Your task to perform on an android device: Open eBay Image 0: 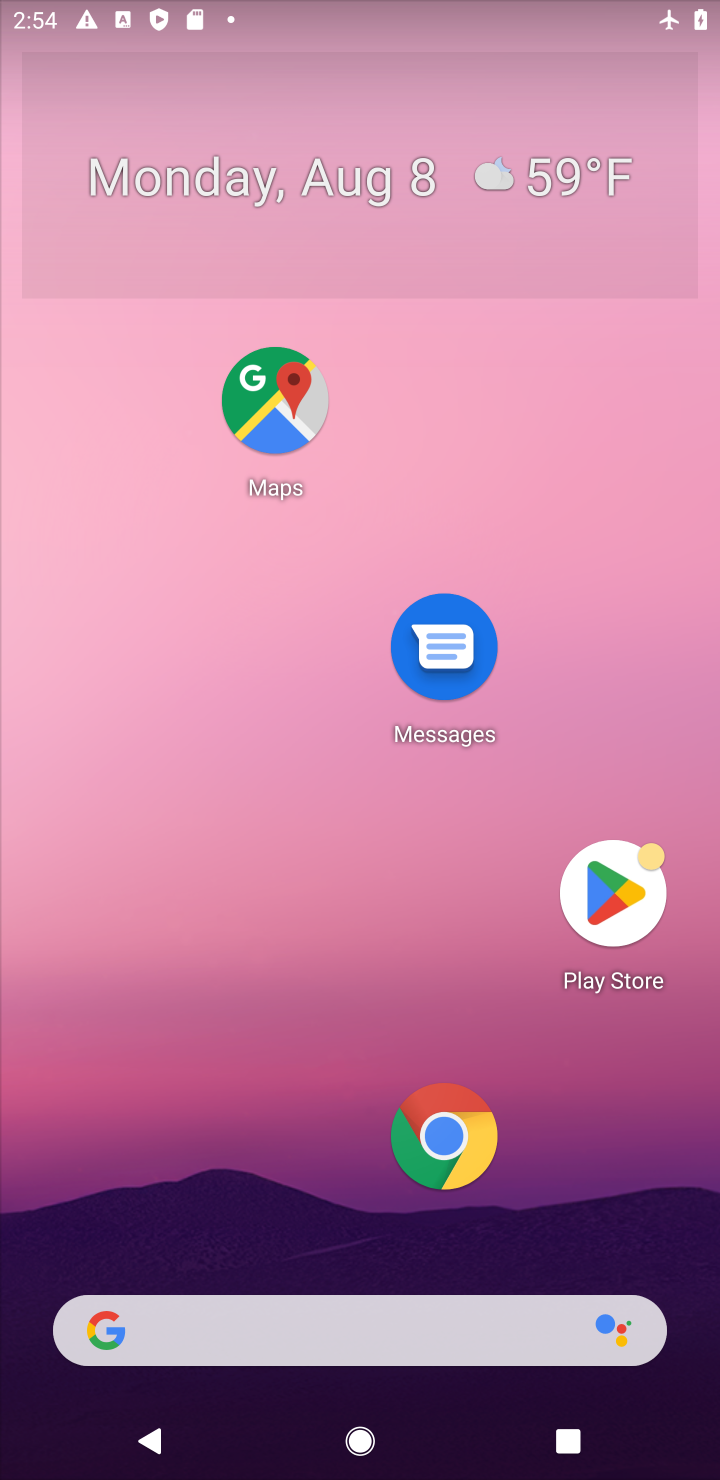
Step 0: click (351, 1328)
Your task to perform on an android device: Open eBay Image 1: 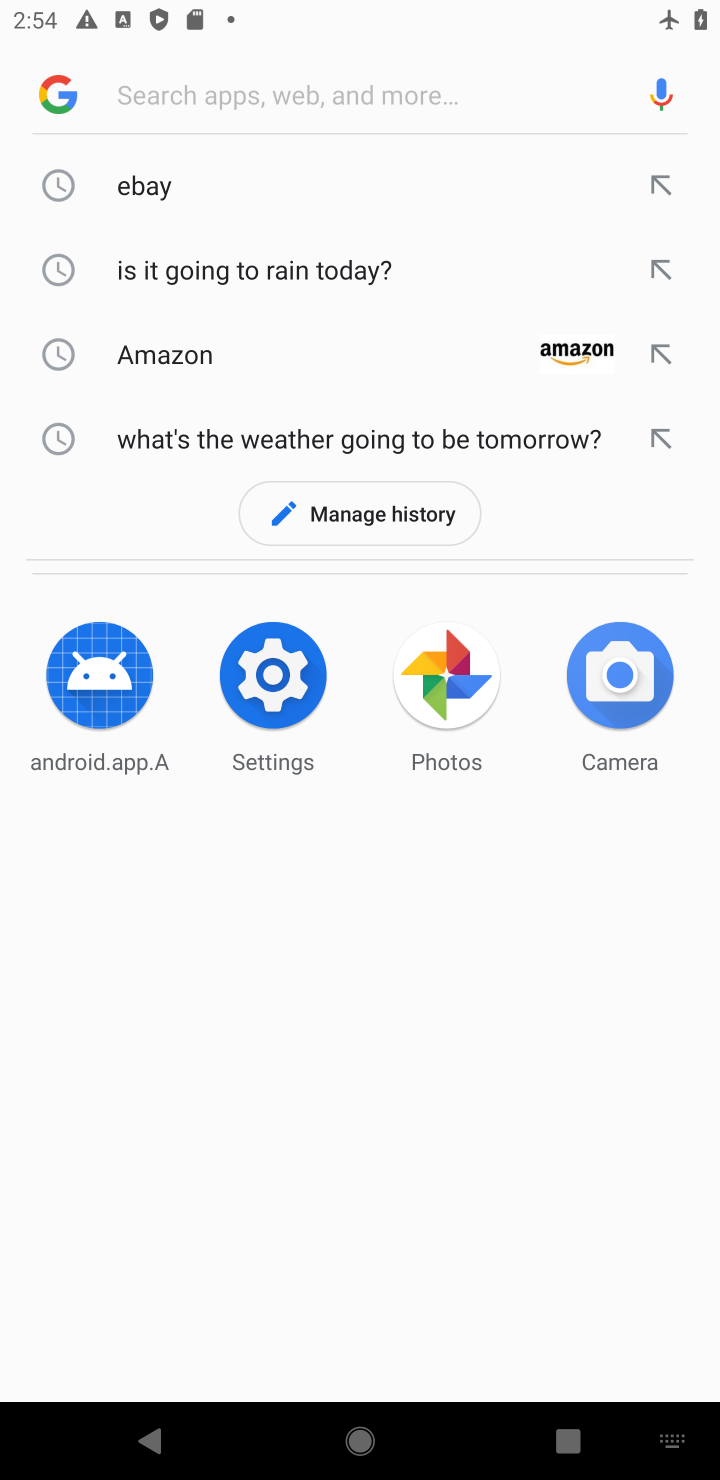
Step 1: click (129, 173)
Your task to perform on an android device: Open eBay Image 2: 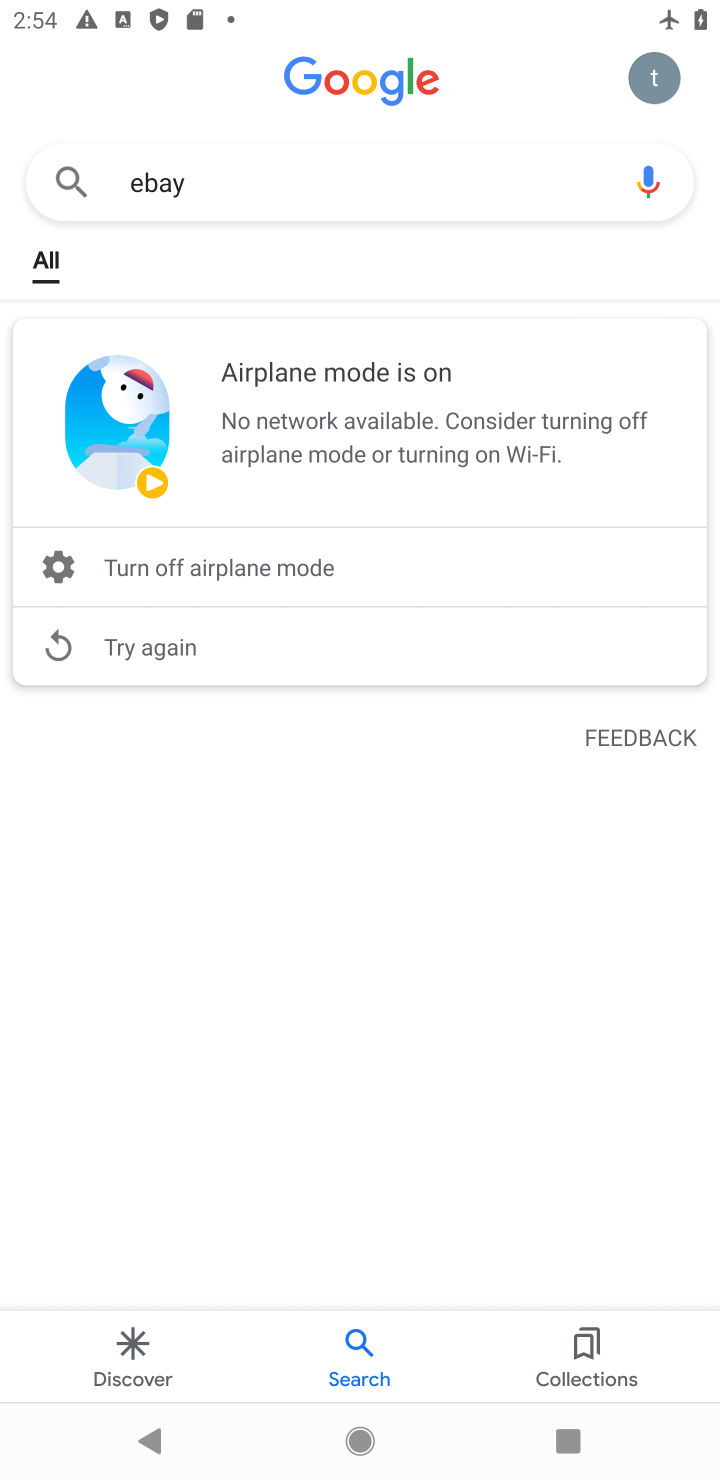
Step 2: drag from (433, 25) to (391, 1155)
Your task to perform on an android device: Open eBay Image 3: 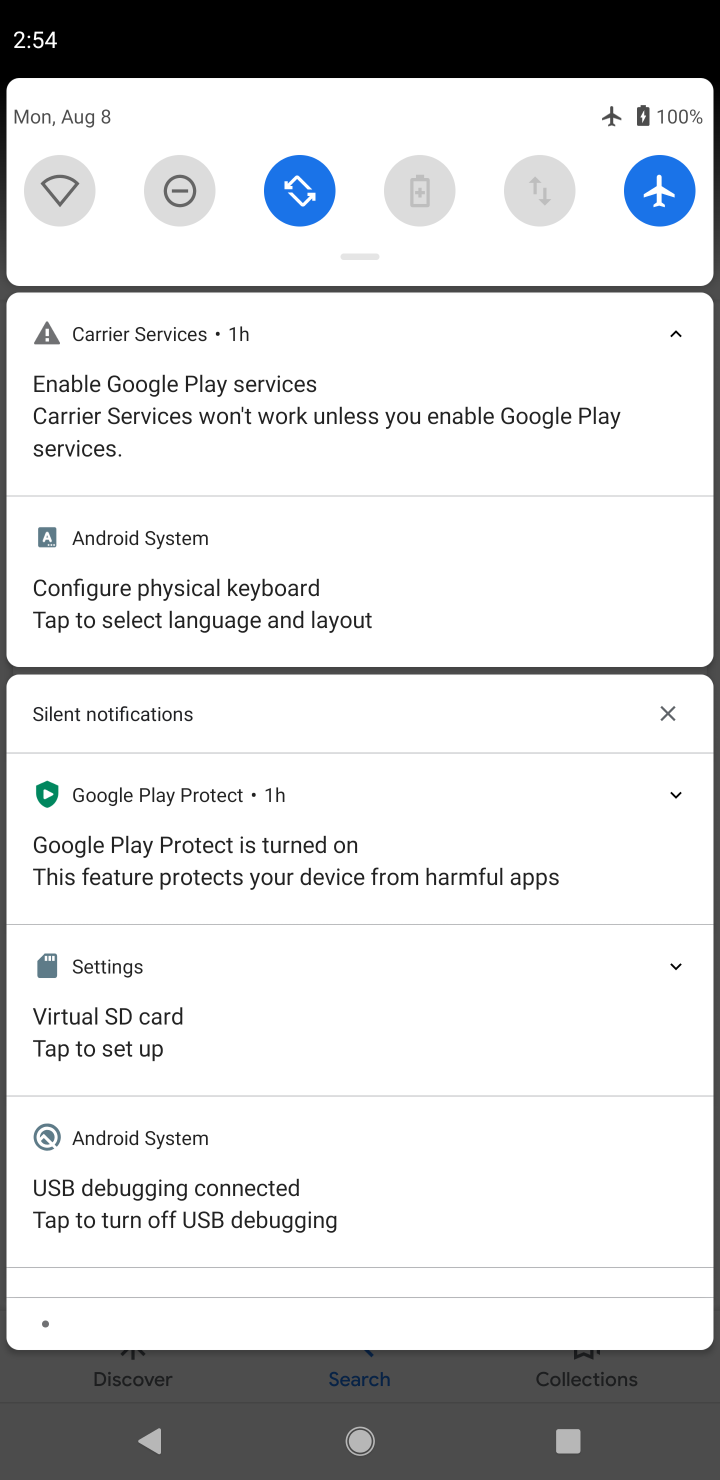
Step 3: click (649, 202)
Your task to perform on an android device: Open eBay Image 4: 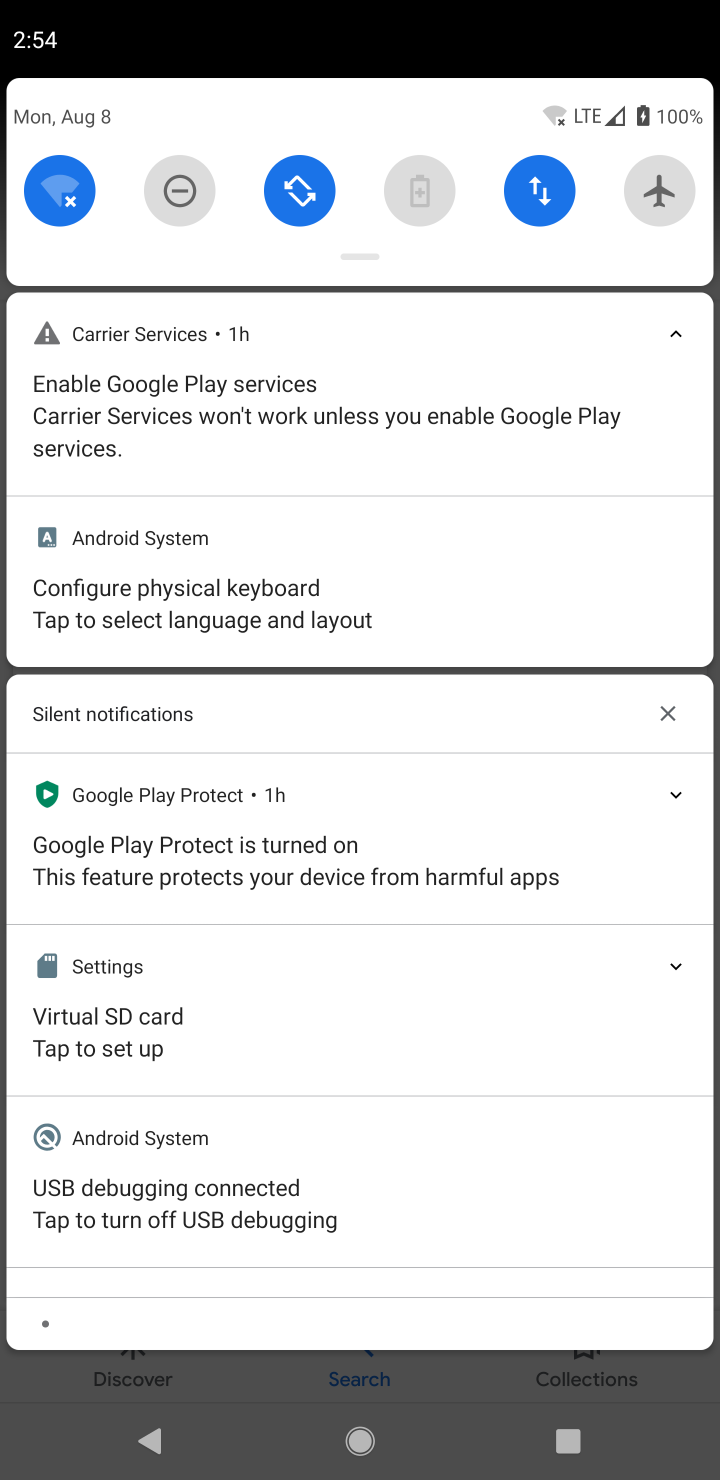
Step 4: click (438, 1395)
Your task to perform on an android device: Open eBay Image 5: 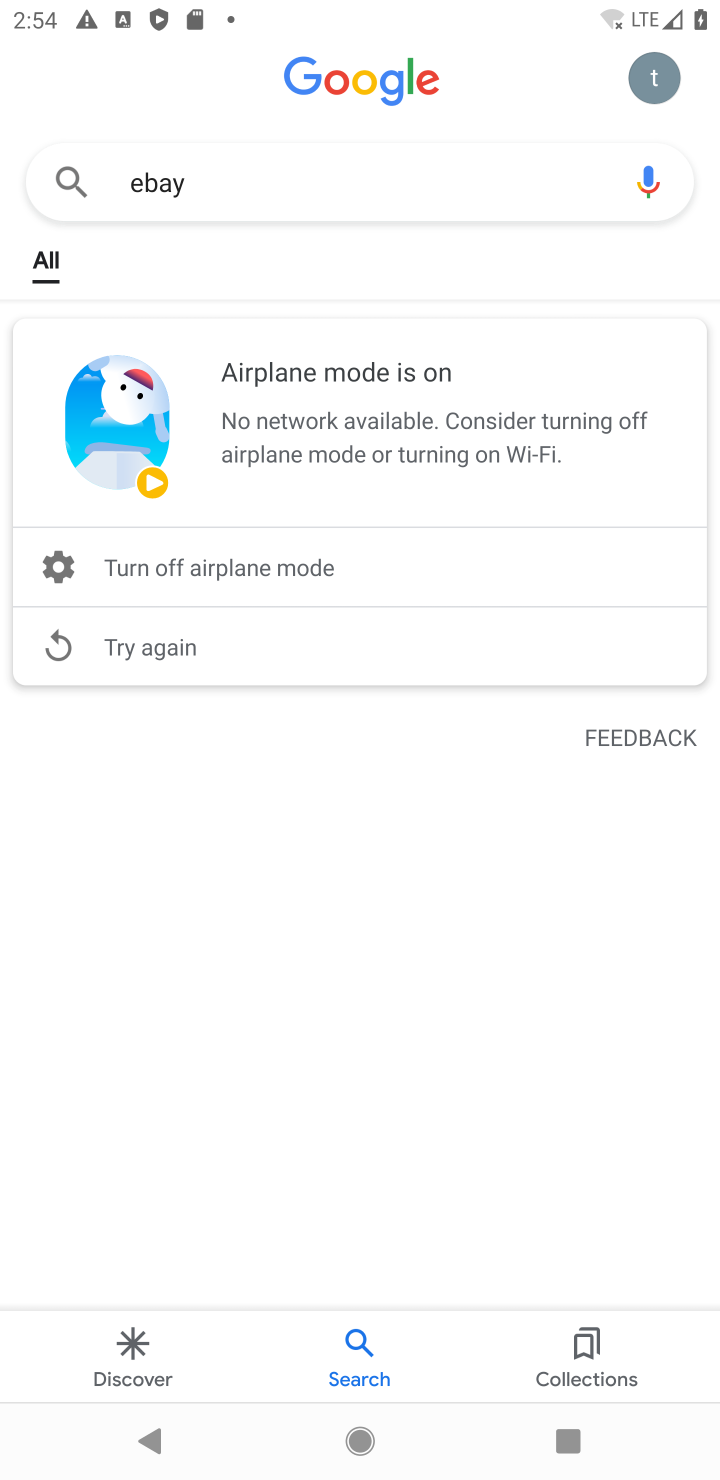
Step 5: click (663, 712)
Your task to perform on an android device: Open eBay Image 6: 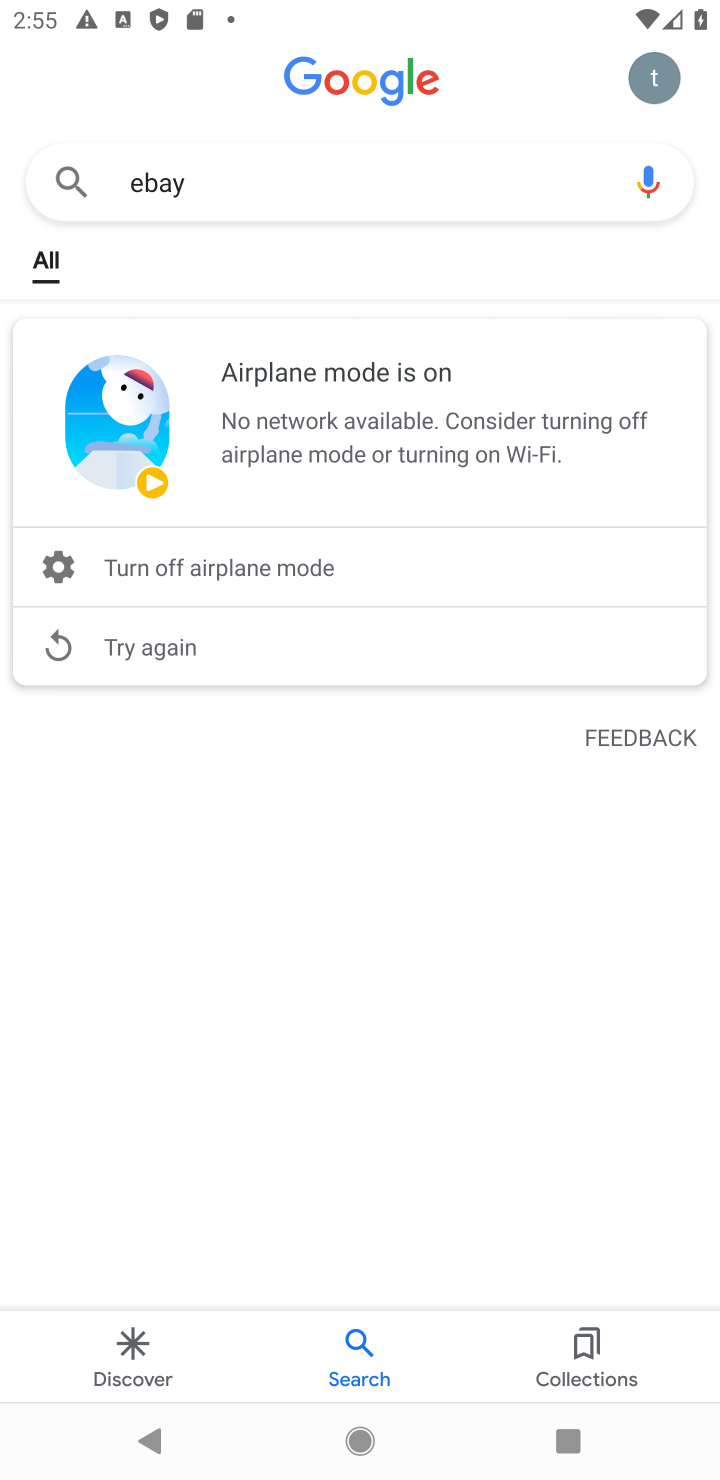
Step 6: task complete